Your task to perform on an android device: toggle pop-ups in chrome Image 0: 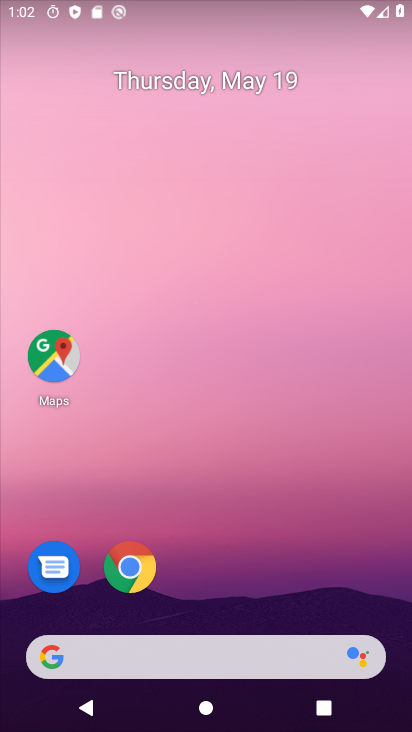
Step 0: press home button
Your task to perform on an android device: toggle pop-ups in chrome Image 1: 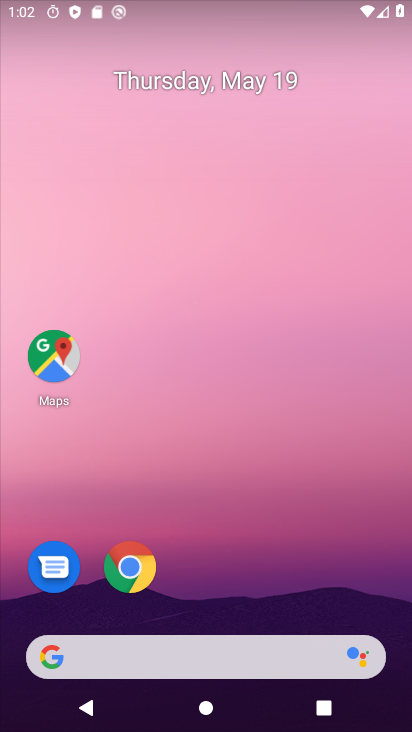
Step 1: click (143, 579)
Your task to perform on an android device: toggle pop-ups in chrome Image 2: 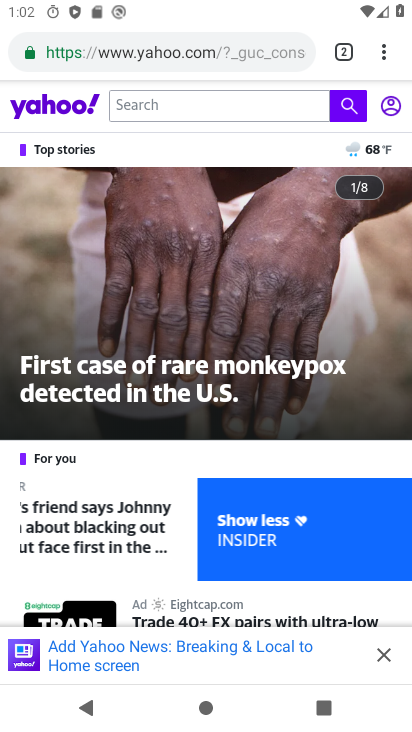
Step 2: drag from (384, 56) to (248, 629)
Your task to perform on an android device: toggle pop-ups in chrome Image 3: 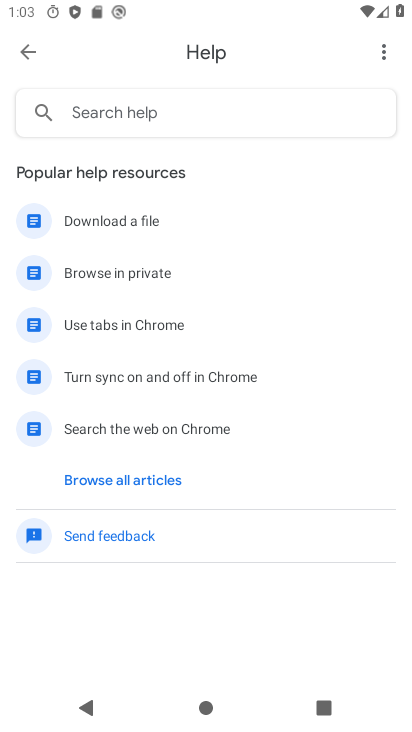
Step 3: press back button
Your task to perform on an android device: toggle pop-ups in chrome Image 4: 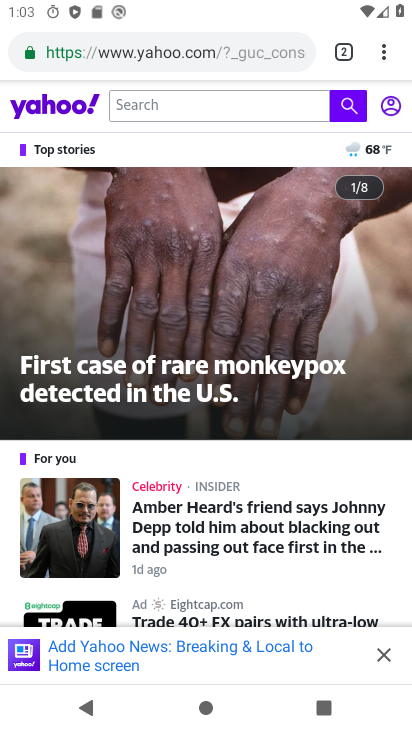
Step 4: drag from (380, 56) to (256, 601)
Your task to perform on an android device: toggle pop-ups in chrome Image 5: 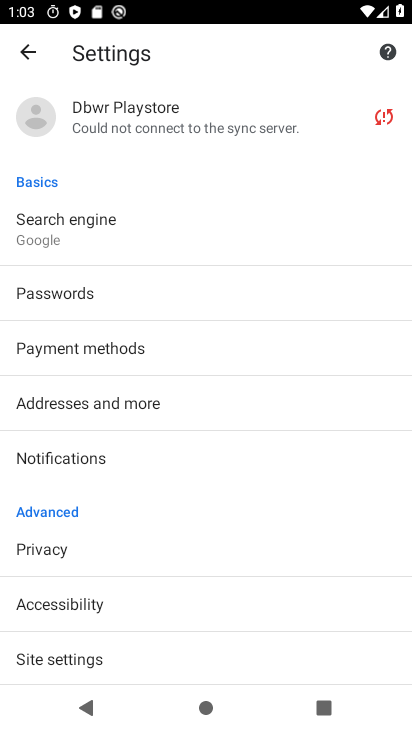
Step 5: drag from (228, 592) to (377, 377)
Your task to perform on an android device: toggle pop-ups in chrome Image 6: 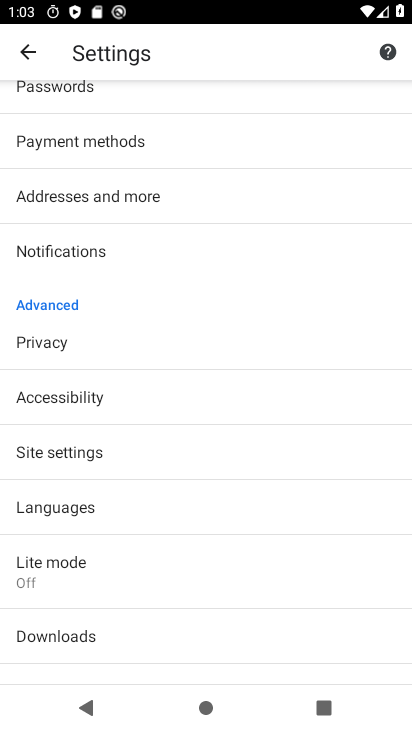
Step 6: click (118, 449)
Your task to perform on an android device: toggle pop-ups in chrome Image 7: 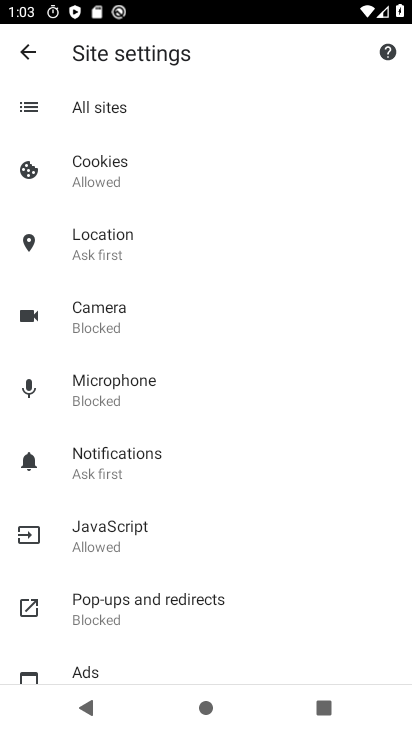
Step 7: click (174, 603)
Your task to perform on an android device: toggle pop-ups in chrome Image 8: 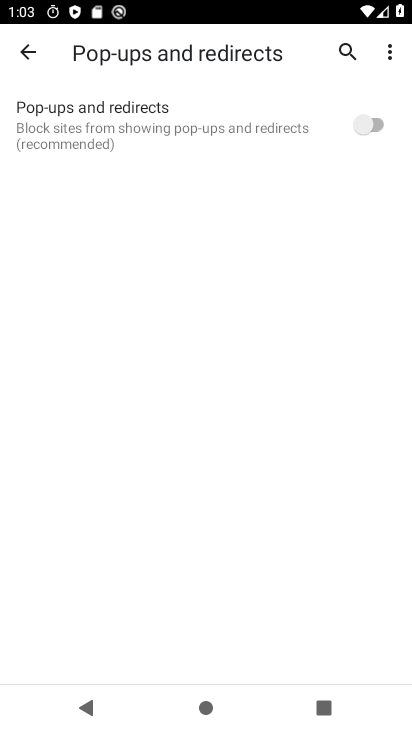
Step 8: click (379, 118)
Your task to perform on an android device: toggle pop-ups in chrome Image 9: 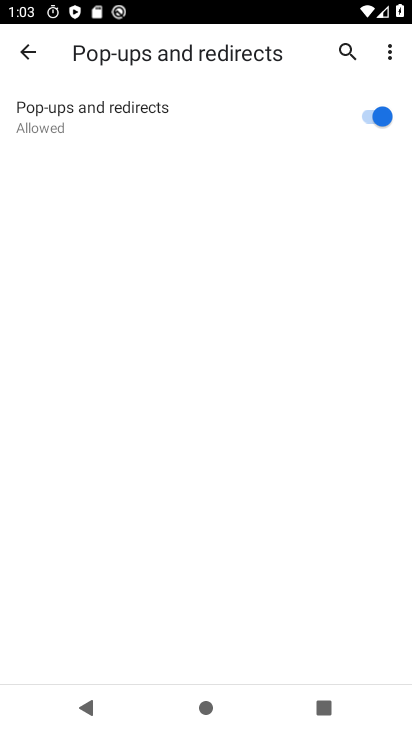
Step 9: task complete